Your task to perform on an android device: Go to location settings Image 0: 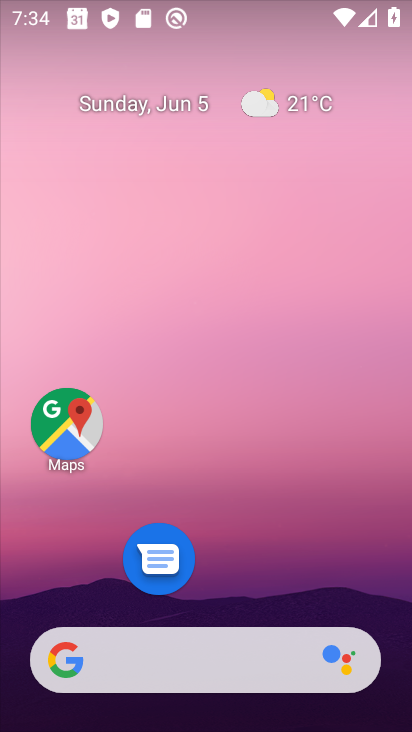
Step 0: drag from (247, 623) to (226, 20)
Your task to perform on an android device: Go to location settings Image 1: 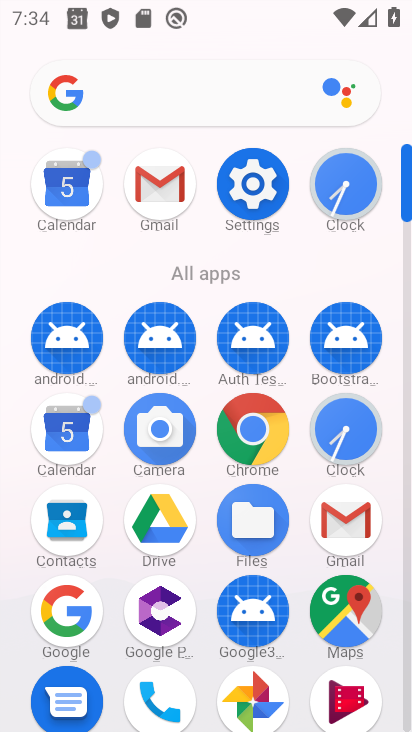
Step 1: click (242, 163)
Your task to perform on an android device: Go to location settings Image 2: 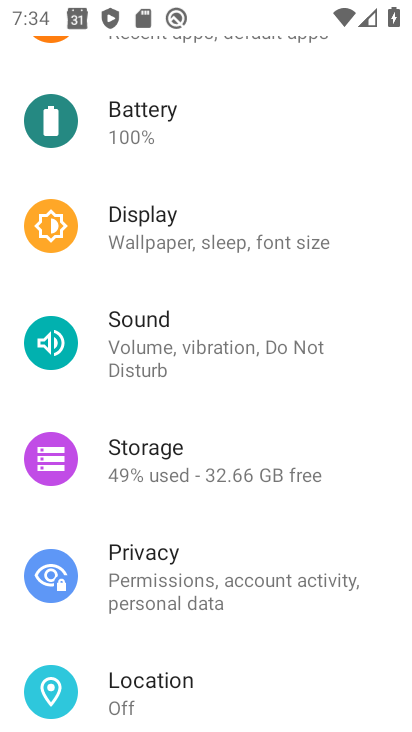
Step 2: click (201, 683)
Your task to perform on an android device: Go to location settings Image 3: 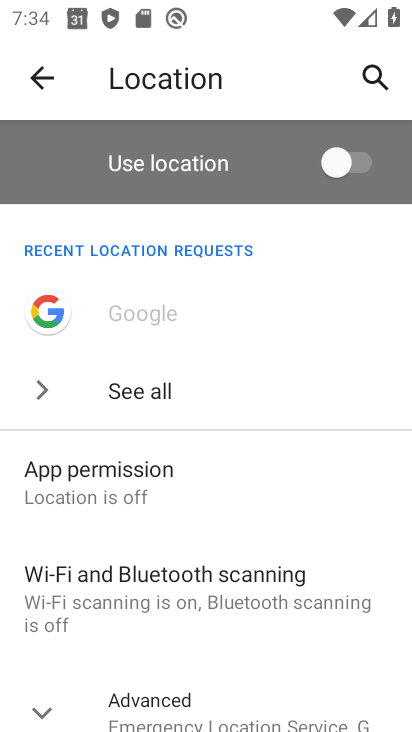
Step 3: task complete